Your task to perform on an android device: Go to wifi settings Image 0: 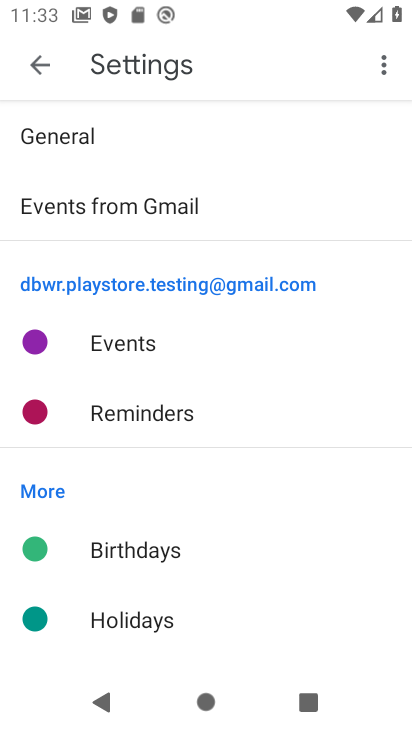
Step 0: press home button
Your task to perform on an android device: Go to wifi settings Image 1: 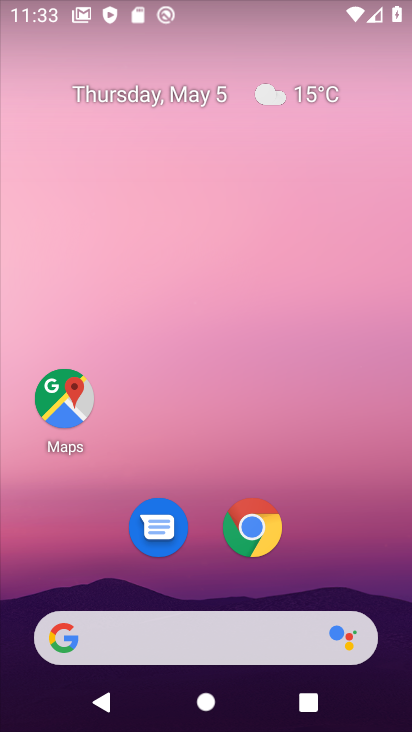
Step 1: drag from (83, 605) to (170, 75)
Your task to perform on an android device: Go to wifi settings Image 2: 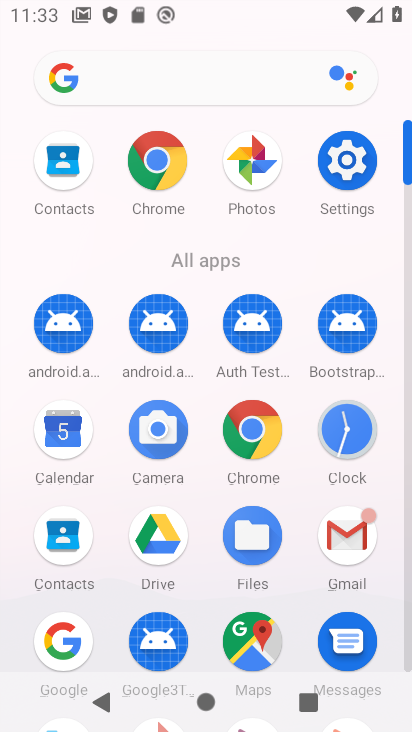
Step 2: click (355, 159)
Your task to perform on an android device: Go to wifi settings Image 3: 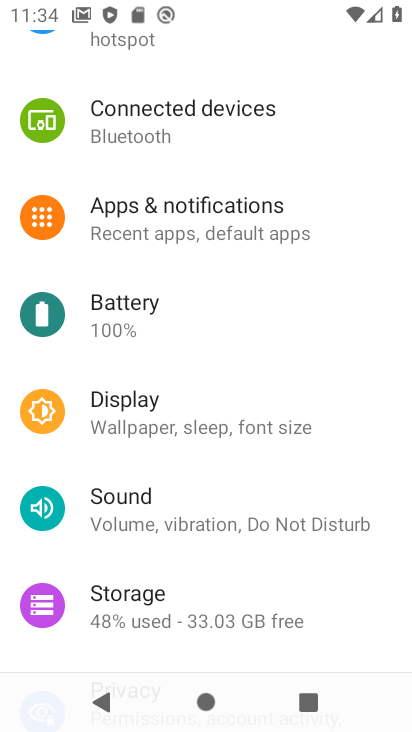
Step 3: drag from (207, 134) to (184, 465)
Your task to perform on an android device: Go to wifi settings Image 4: 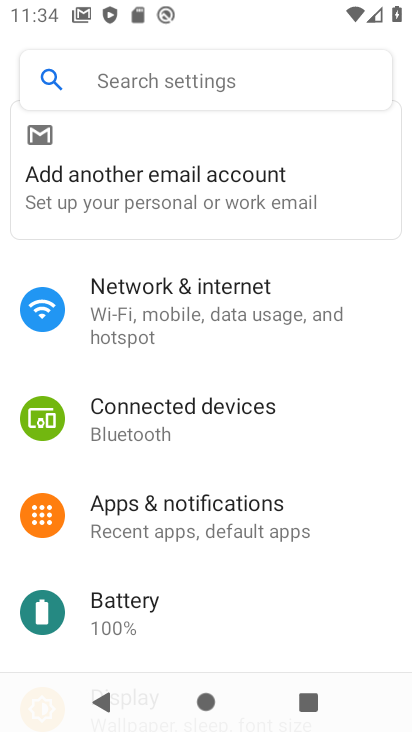
Step 4: click (215, 313)
Your task to perform on an android device: Go to wifi settings Image 5: 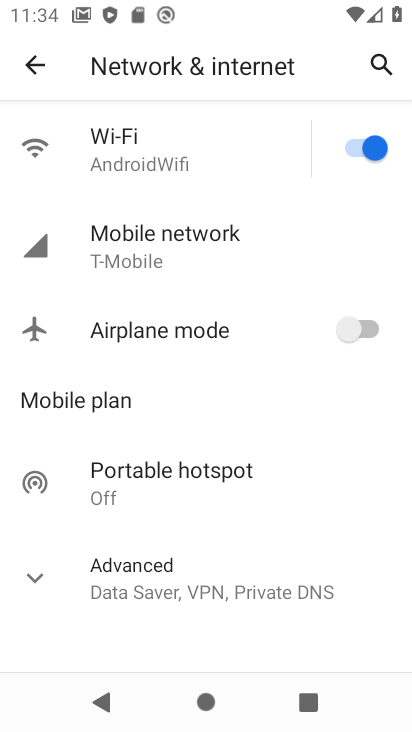
Step 5: click (175, 165)
Your task to perform on an android device: Go to wifi settings Image 6: 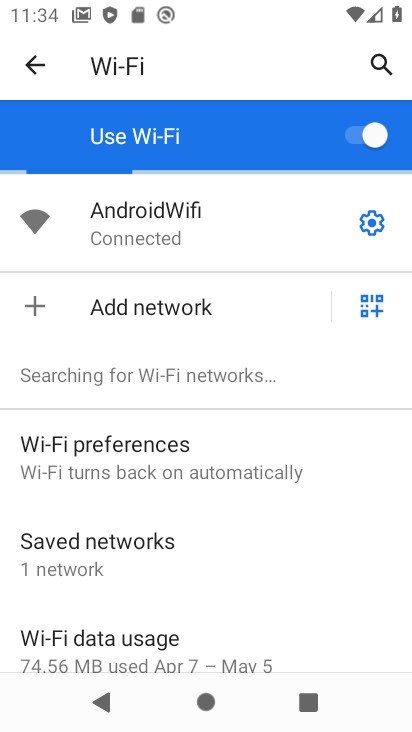
Step 6: task complete